Your task to perform on an android device: Open accessibility settings Image 0: 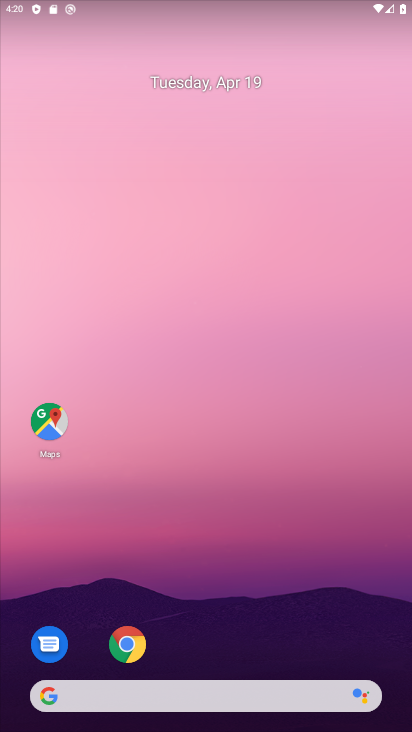
Step 0: drag from (192, 562) to (178, 255)
Your task to perform on an android device: Open accessibility settings Image 1: 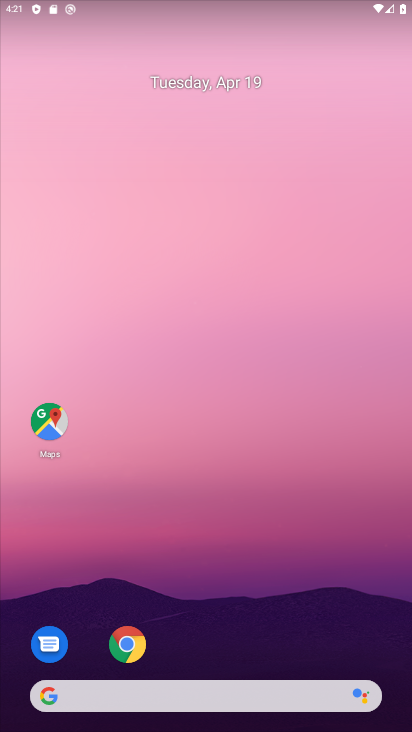
Step 1: drag from (238, 649) to (208, 249)
Your task to perform on an android device: Open accessibility settings Image 2: 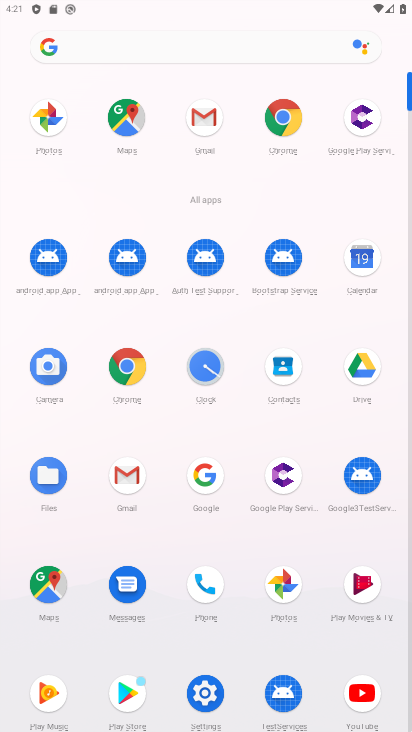
Step 2: click (197, 694)
Your task to perform on an android device: Open accessibility settings Image 3: 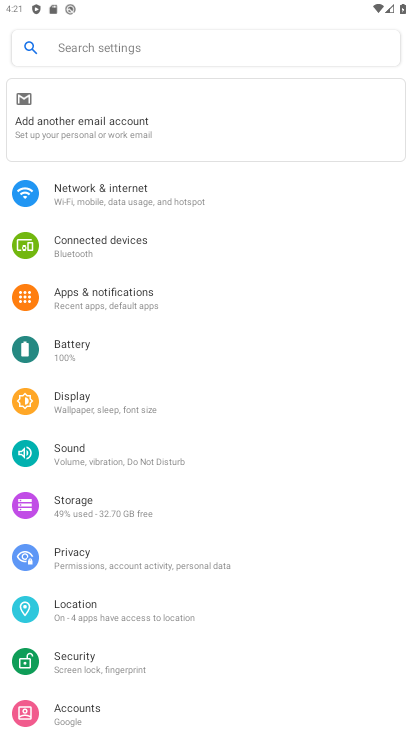
Step 3: drag from (145, 623) to (133, 290)
Your task to perform on an android device: Open accessibility settings Image 4: 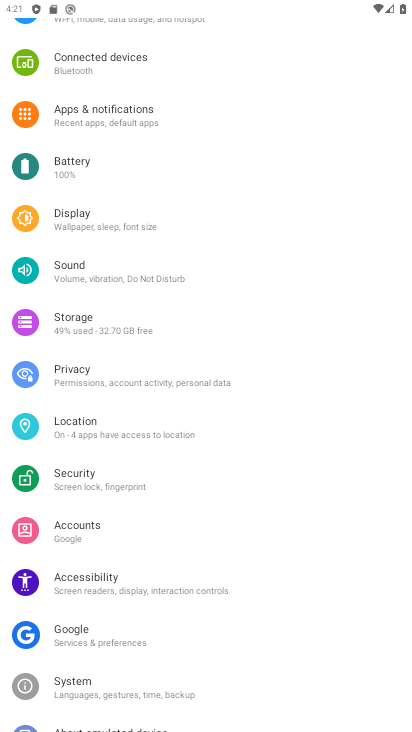
Step 4: click (98, 587)
Your task to perform on an android device: Open accessibility settings Image 5: 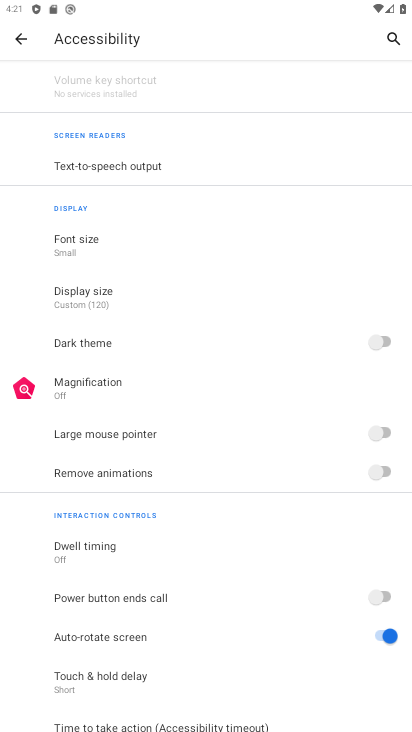
Step 5: task complete